Your task to perform on an android device: Open calendar and show me the second week of next month Image 0: 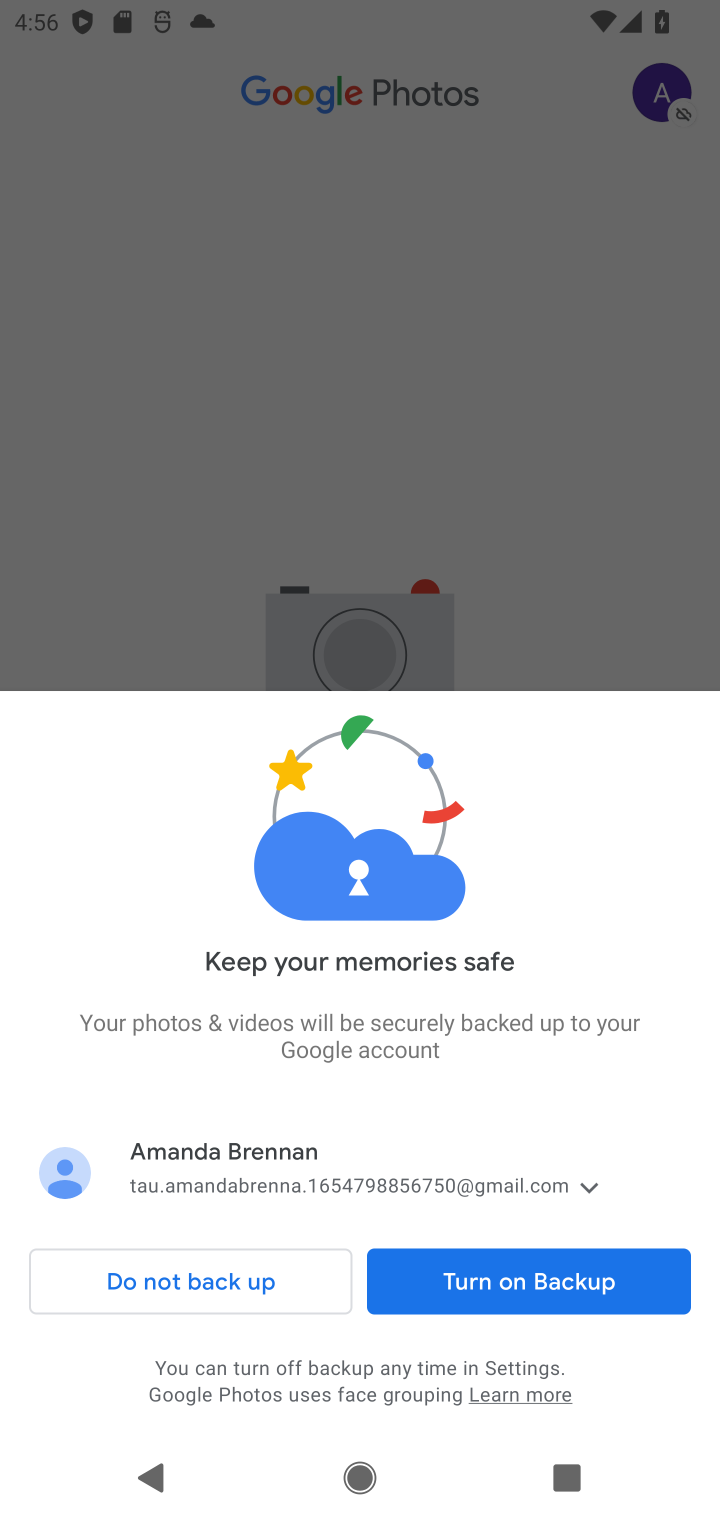
Step 0: press home button
Your task to perform on an android device: Open calendar and show me the second week of next month Image 1: 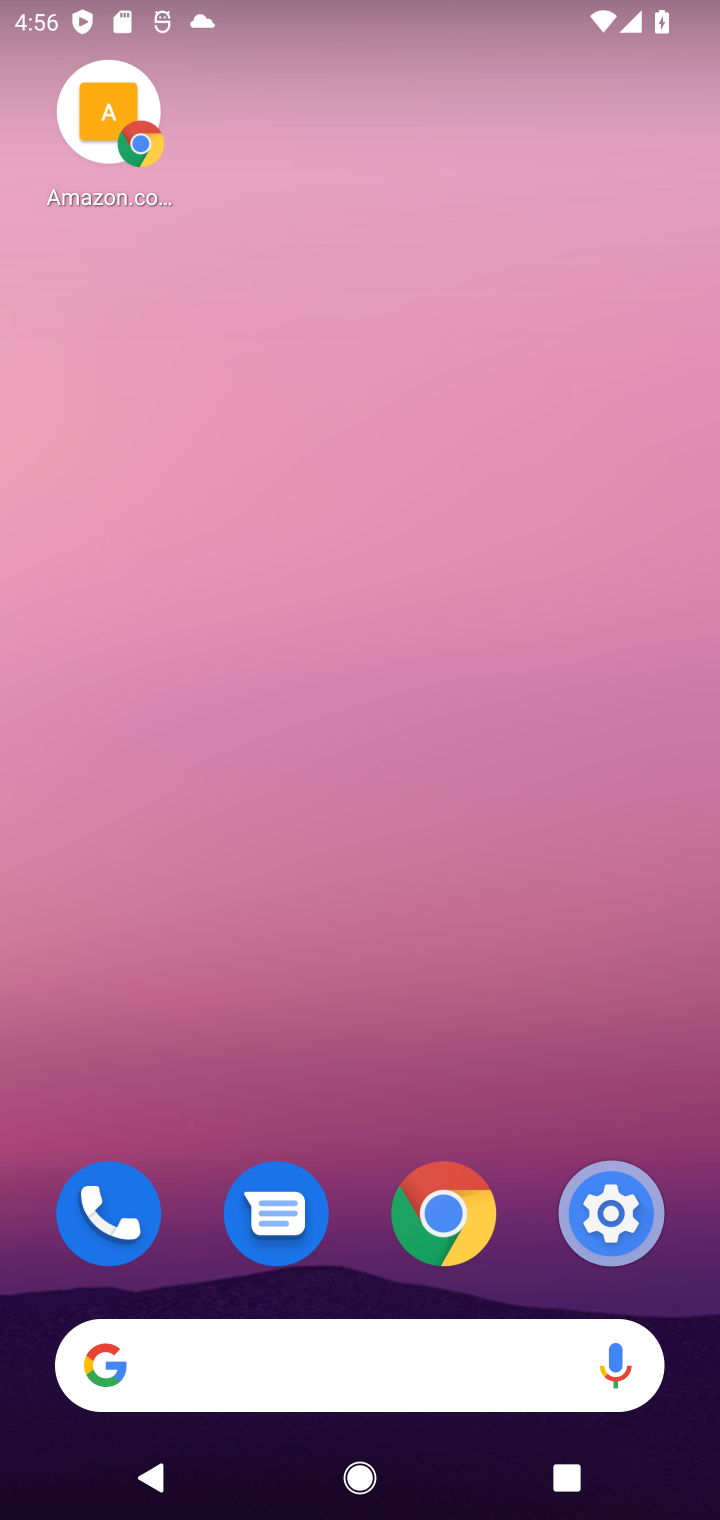
Step 1: drag from (310, 1376) to (496, 132)
Your task to perform on an android device: Open calendar and show me the second week of next month Image 2: 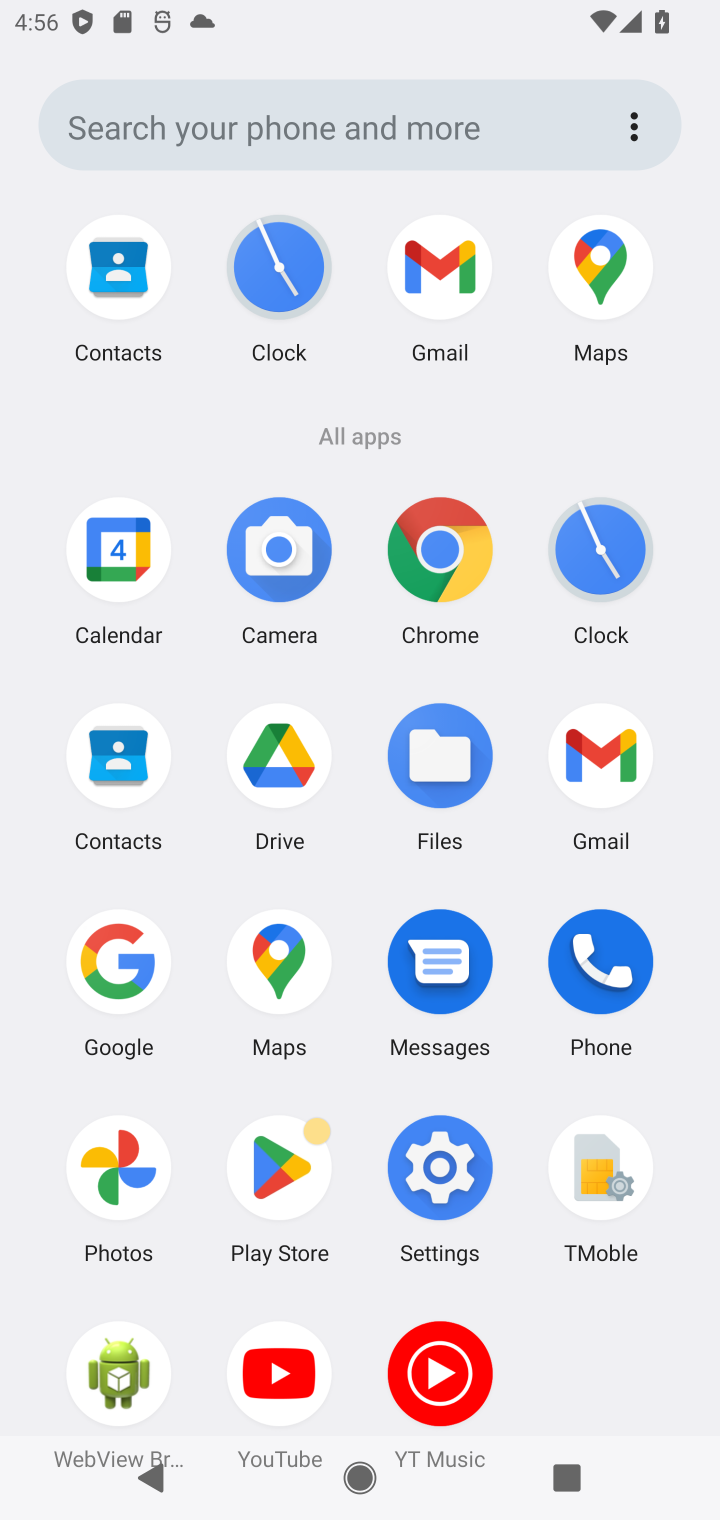
Step 2: click (116, 552)
Your task to perform on an android device: Open calendar and show me the second week of next month Image 3: 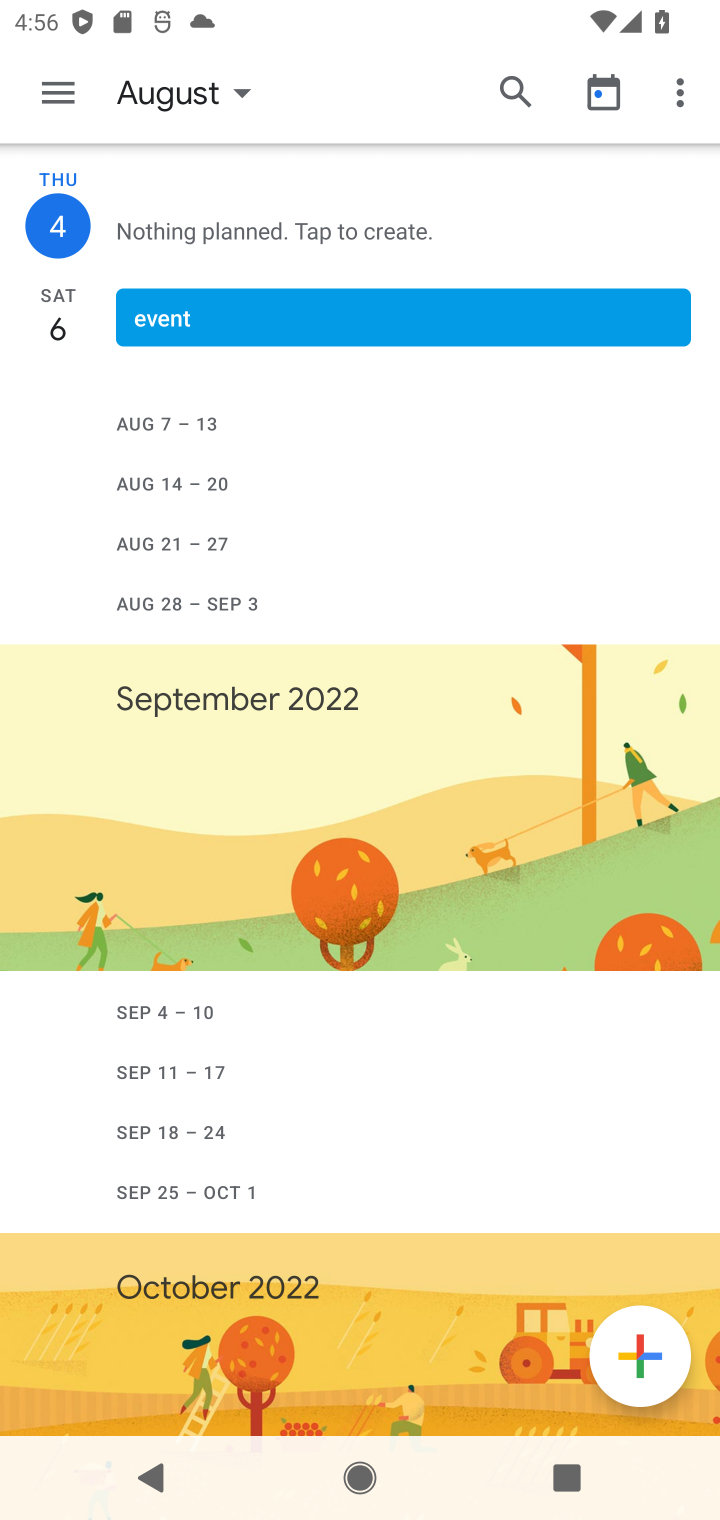
Step 3: click (242, 90)
Your task to perform on an android device: Open calendar and show me the second week of next month Image 4: 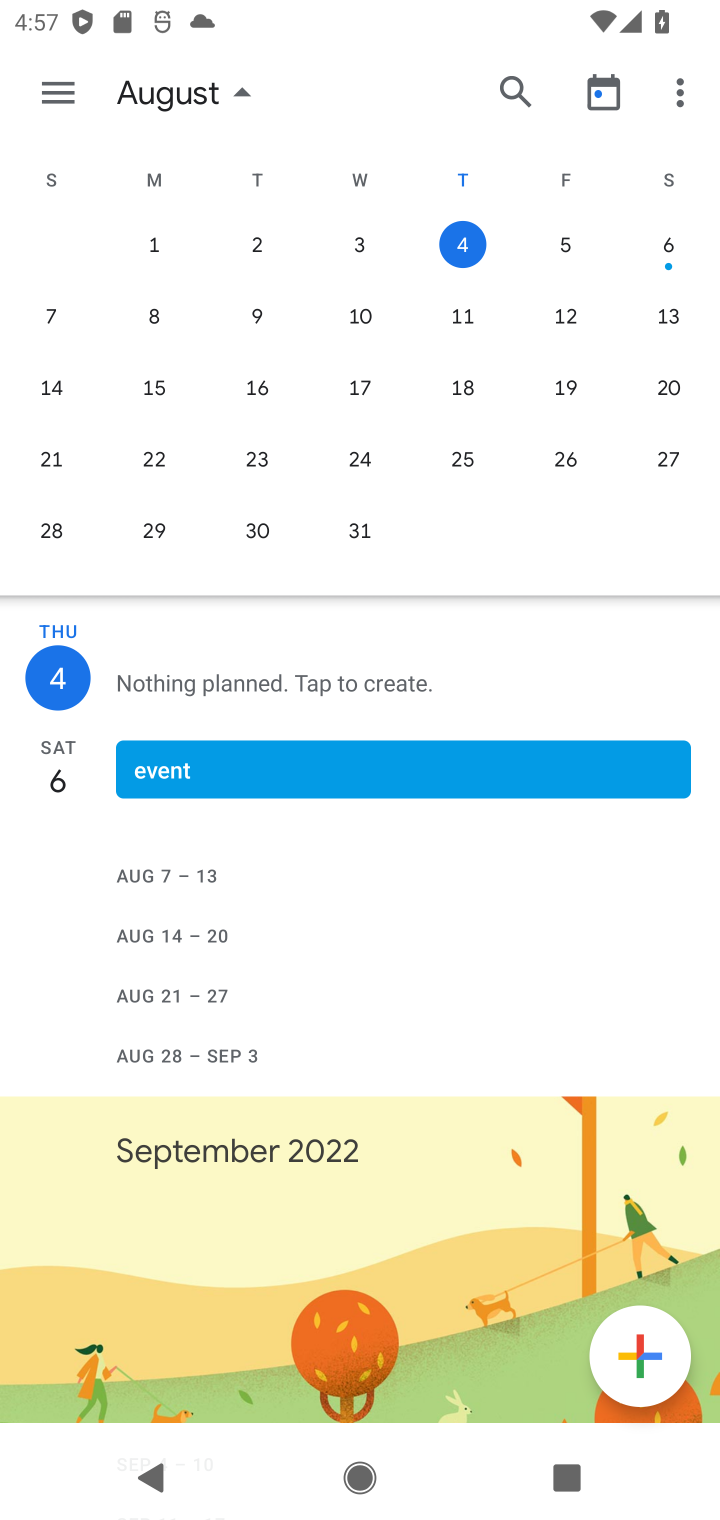
Step 4: drag from (636, 424) to (14, 306)
Your task to perform on an android device: Open calendar and show me the second week of next month Image 5: 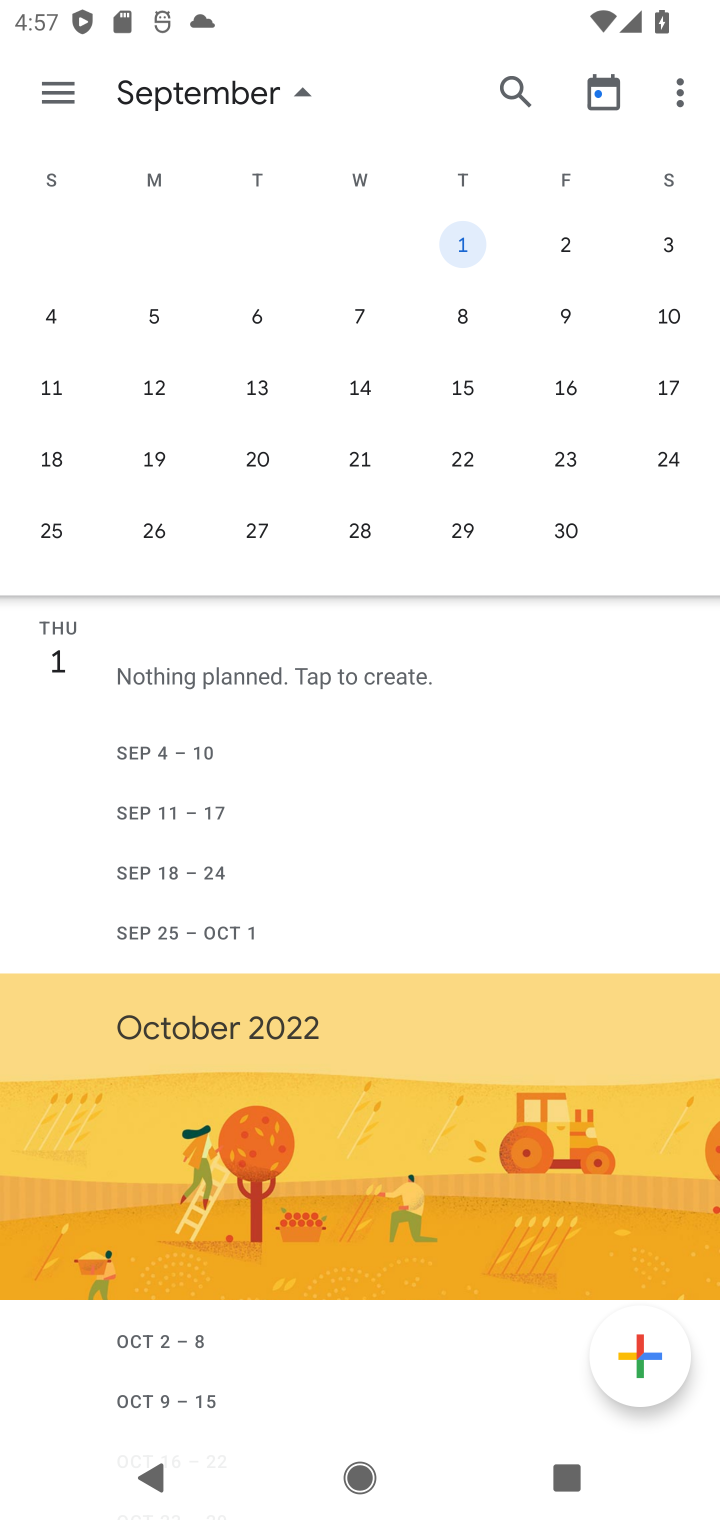
Step 5: click (155, 382)
Your task to perform on an android device: Open calendar and show me the second week of next month Image 6: 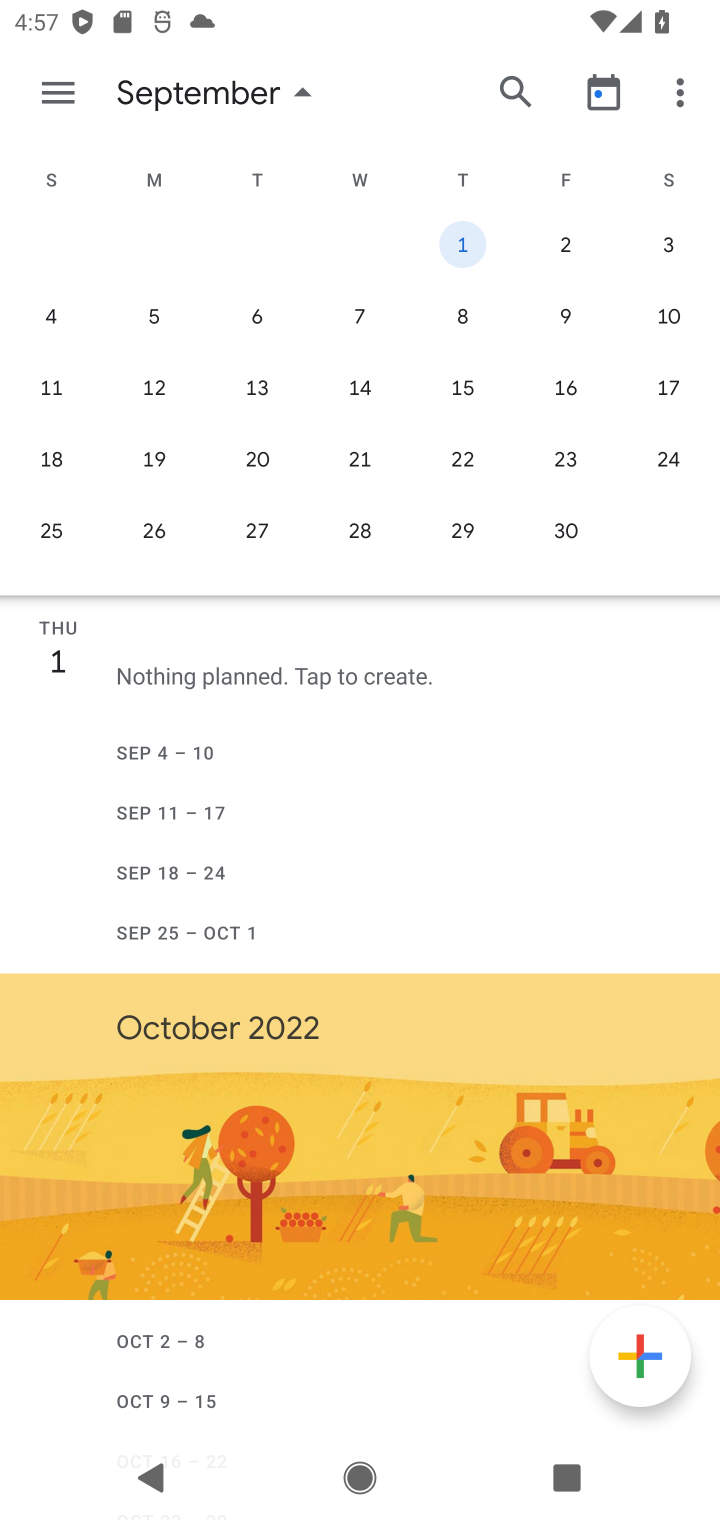
Step 6: click (155, 382)
Your task to perform on an android device: Open calendar and show me the second week of next month Image 7: 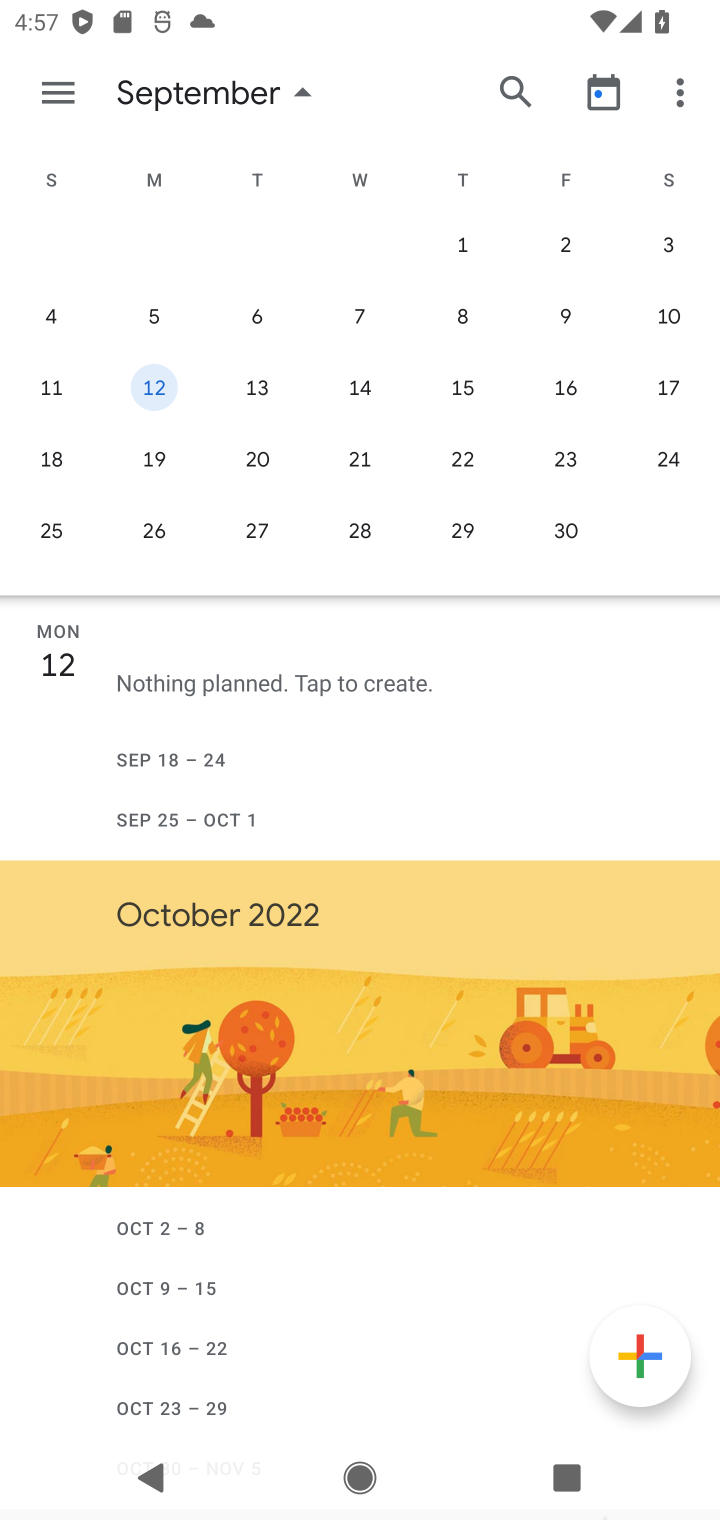
Step 7: click (36, 85)
Your task to perform on an android device: Open calendar and show me the second week of next month Image 8: 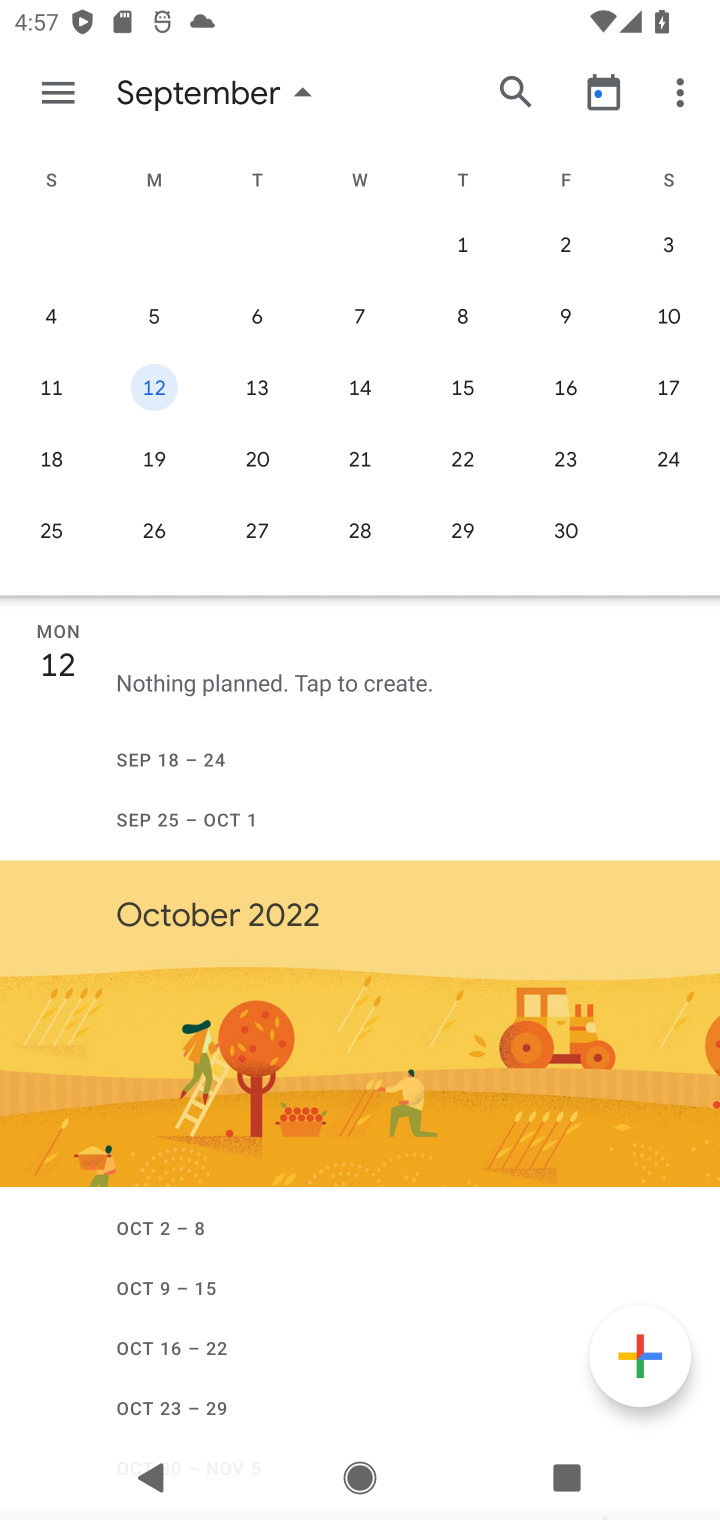
Step 8: click (50, 91)
Your task to perform on an android device: Open calendar and show me the second week of next month Image 9: 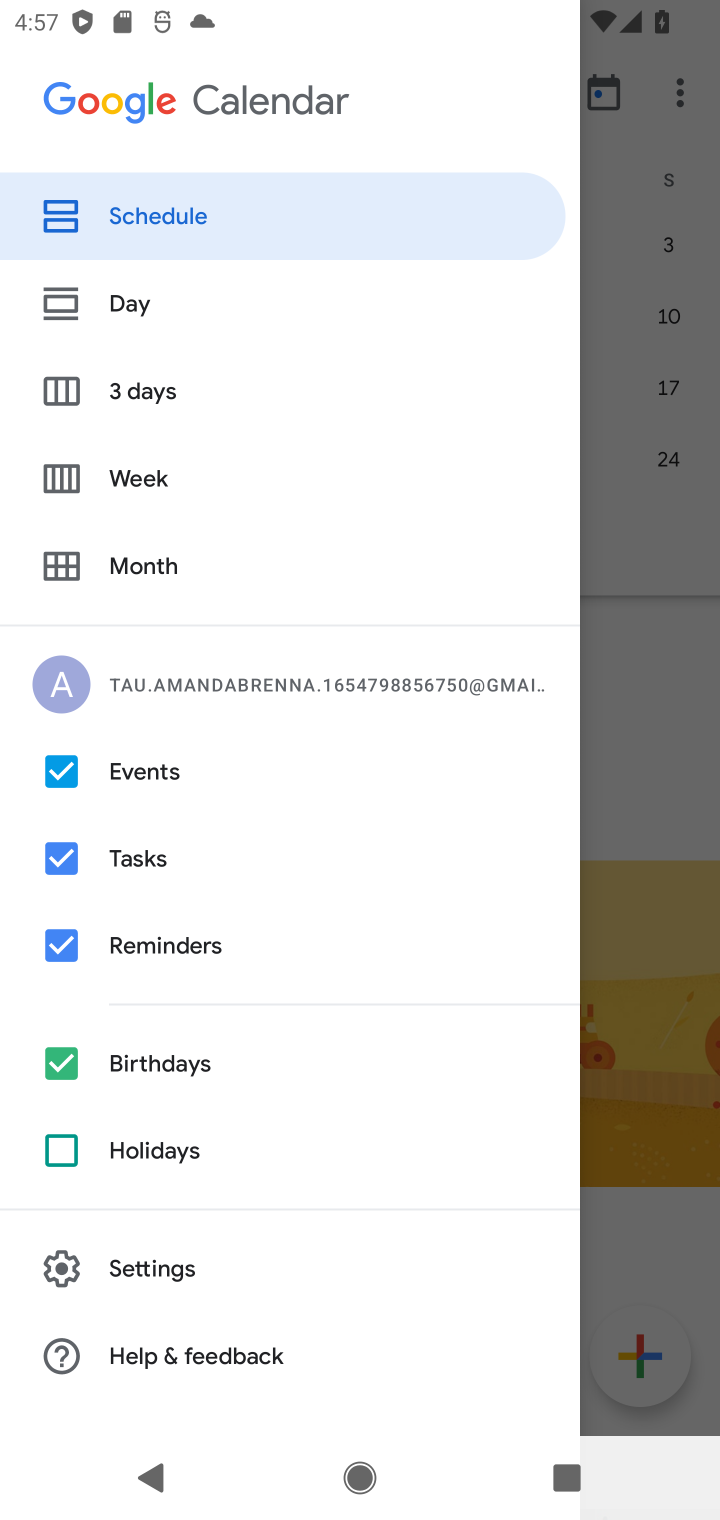
Step 9: click (167, 467)
Your task to perform on an android device: Open calendar and show me the second week of next month Image 10: 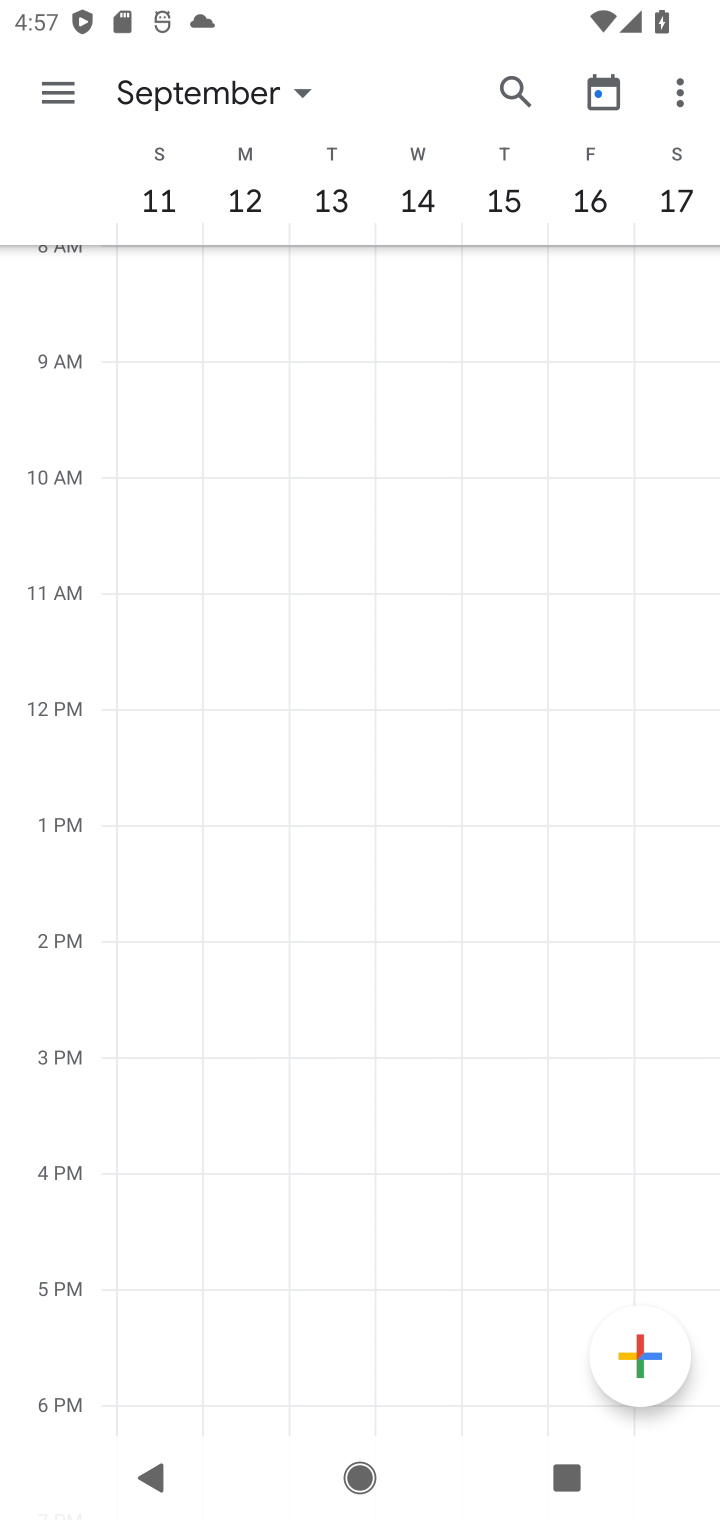
Step 10: task complete